Your task to perform on an android device: open a bookmark in the chrome app Image 0: 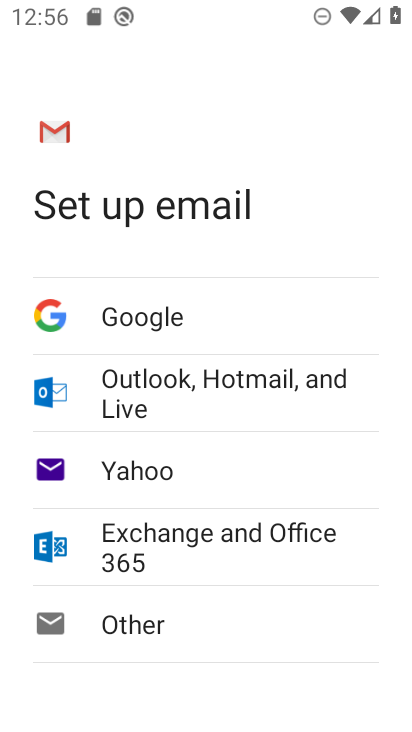
Step 0: press home button
Your task to perform on an android device: open a bookmark in the chrome app Image 1: 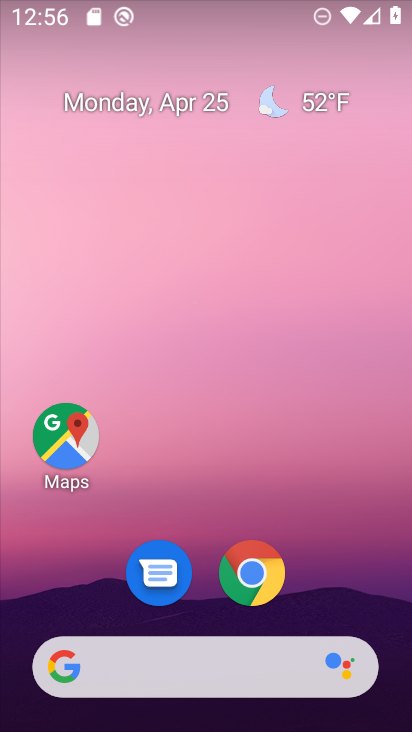
Step 1: click (256, 574)
Your task to perform on an android device: open a bookmark in the chrome app Image 2: 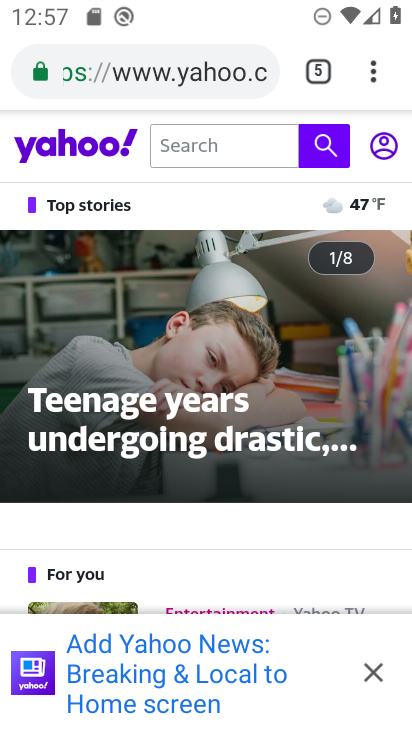
Step 2: click (375, 81)
Your task to perform on an android device: open a bookmark in the chrome app Image 3: 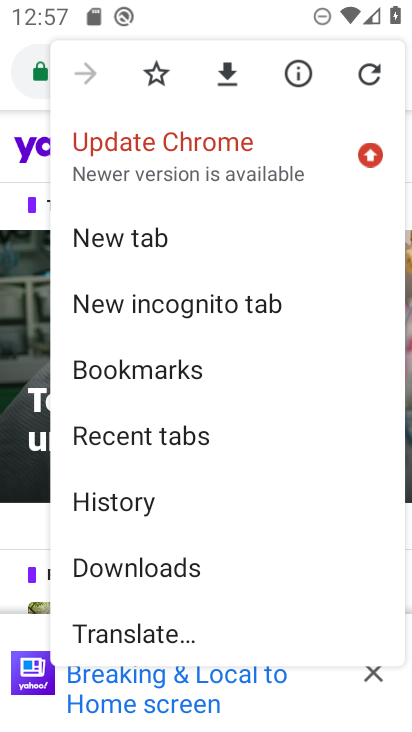
Step 3: click (121, 368)
Your task to perform on an android device: open a bookmark in the chrome app Image 4: 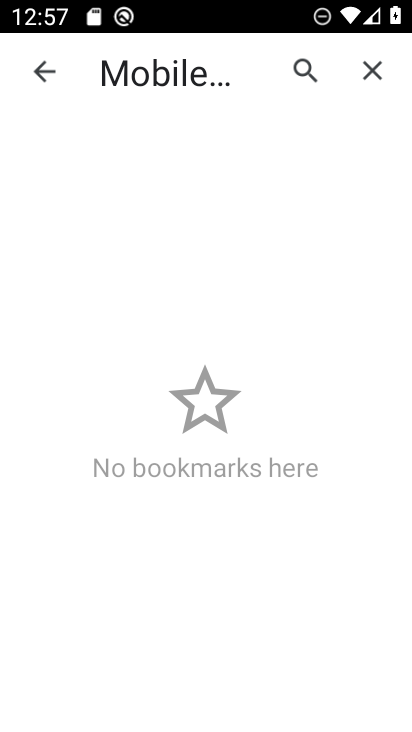
Step 4: task complete